Your task to perform on an android device: toggle sleep mode Image 0: 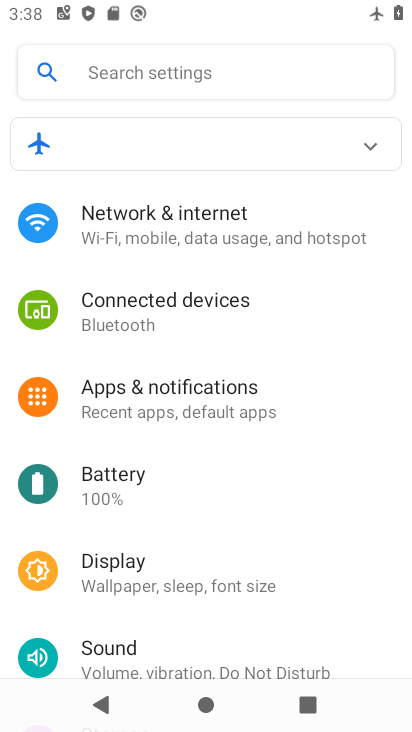
Step 0: press home button
Your task to perform on an android device: toggle sleep mode Image 1: 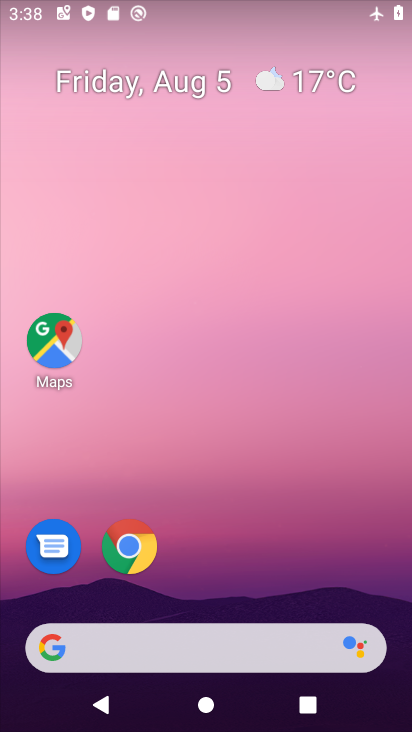
Step 1: drag from (341, 593) to (345, 203)
Your task to perform on an android device: toggle sleep mode Image 2: 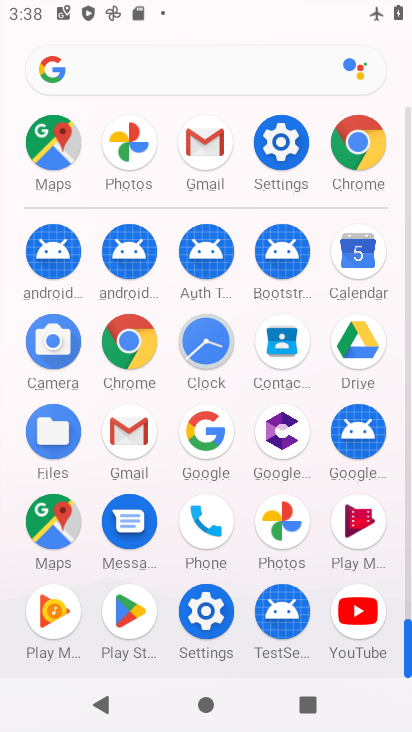
Step 2: click (279, 147)
Your task to perform on an android device: toggle sleep mode Image 3: 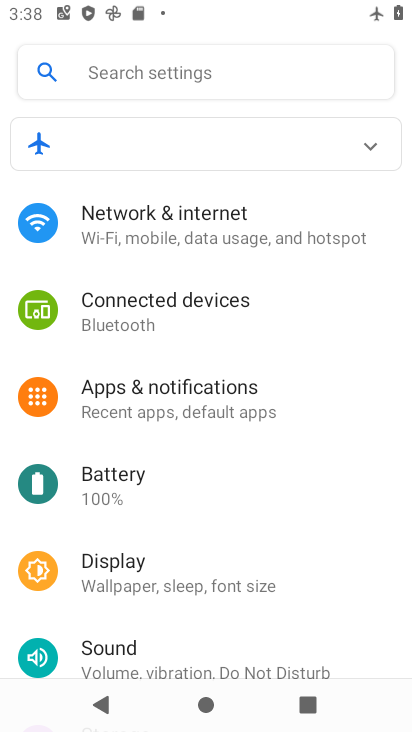
Step 3: drag from (314, 354) to (322, 288)
Your task to perform on an android device: toggle sleep mode Image 4: 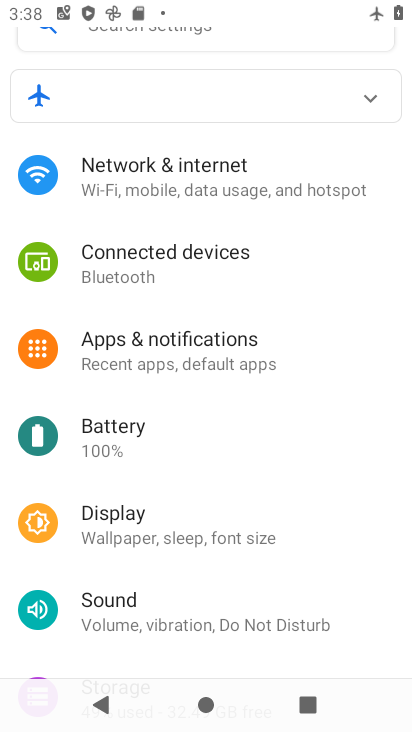
Step 4: drag from (333, 376) to (332, 294)
Your task to perform on an android device: toggle sleep mode Image 5: 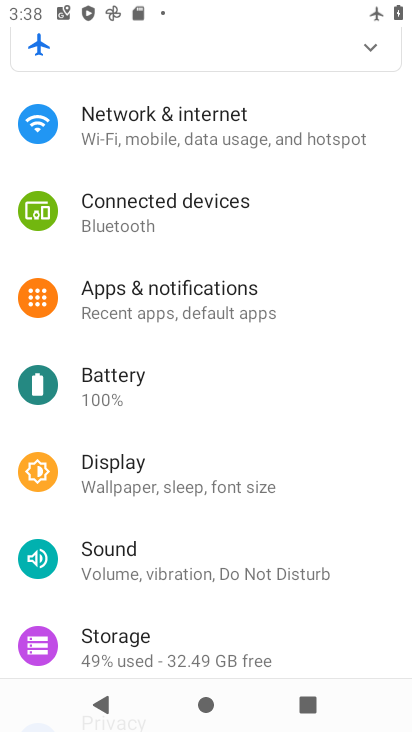
Step 5: drag from (338, 379) to (340, 293)
Your task to perform on an android device: toggle sleep mode Image 6: 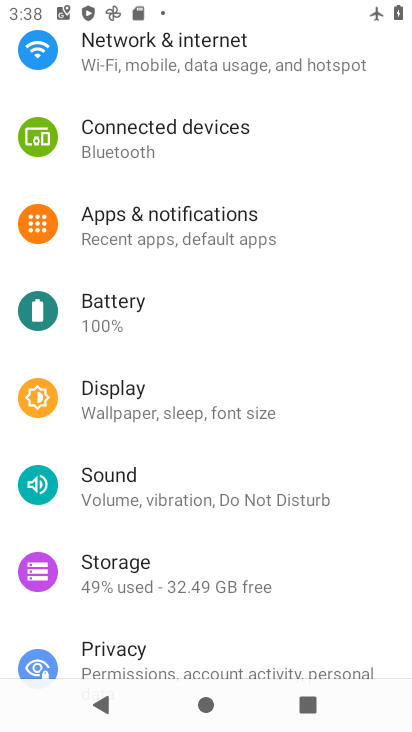
Step 6: drag from (339, 428) to (338, 269)
Your task to perform on an android device: toggle sleep mode Image 7: 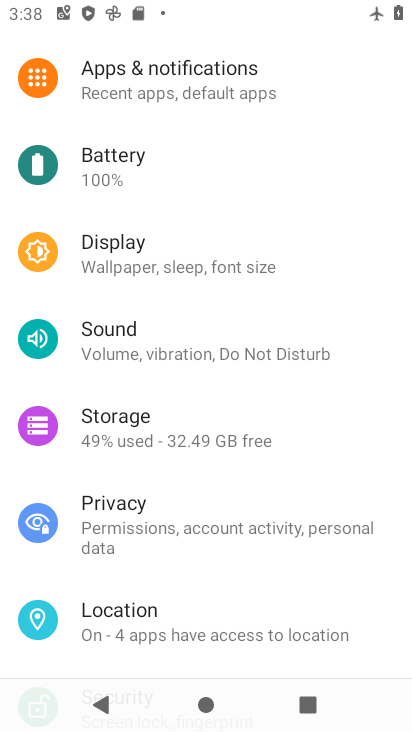
Step 7: click (289, 265)
Your task to perform on an android device: toggle sleep mode Image 8: 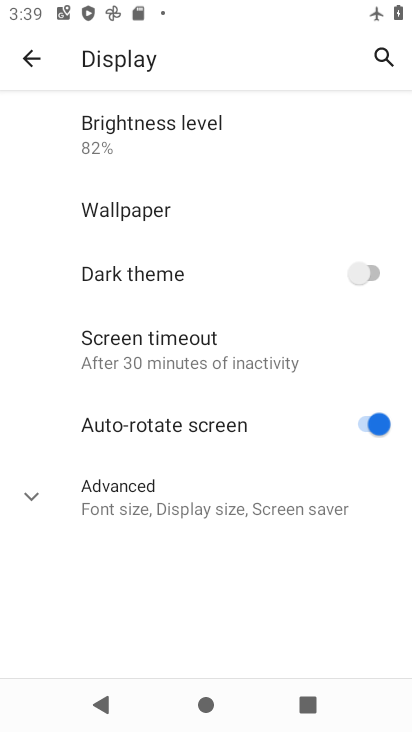
Step 8: click (208, 488)
Your task to perform on an android device: toggle sleep mode Image 9: 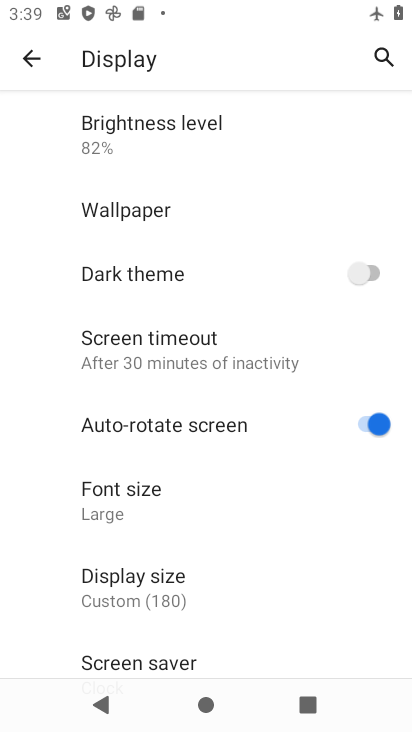
Step 9: task complete